Your task to perform on an android device: check google app version Image 0: 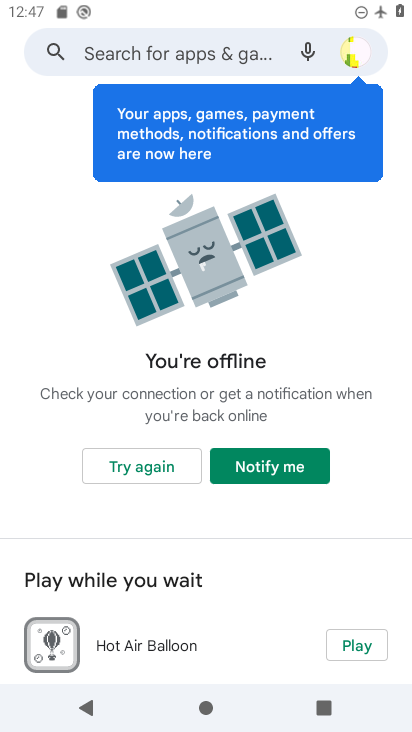
Step 0: press home button
Your task to perform on an android device: check google app version Image 1: 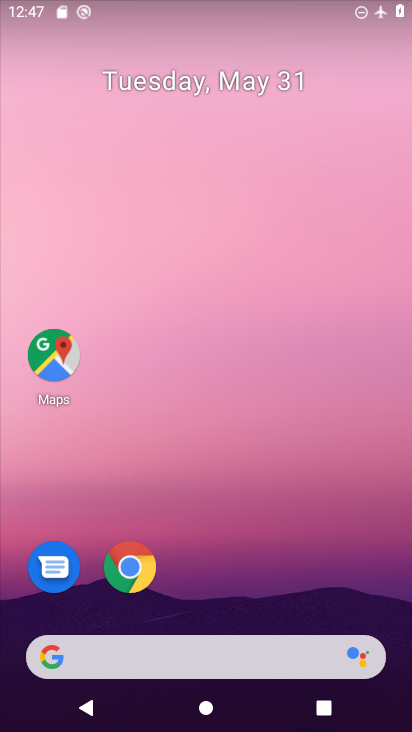
Step 1: drag from (233, 598) to (226, 95)
Your task to perform on an android device: check google app version Image 2: 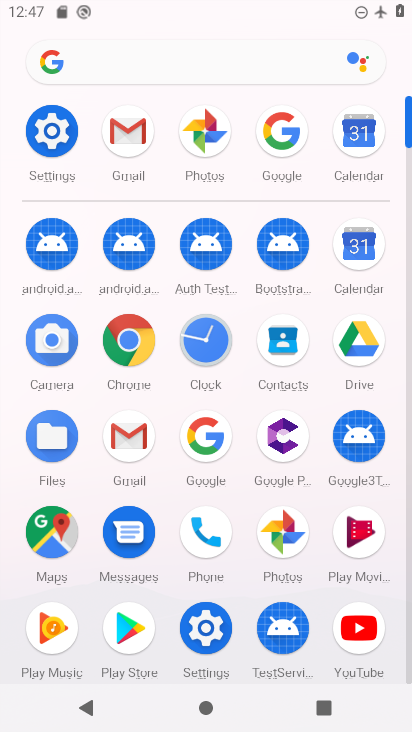
Step 2: click (259, 153)
Your task to perform on an android device: check google app version Image 3: 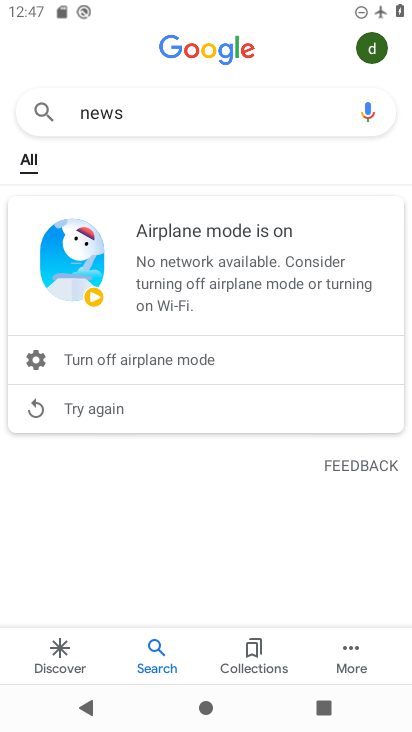
Step 3: click (360, 636)
Your task to perform on an android device: check google app version Image 4: 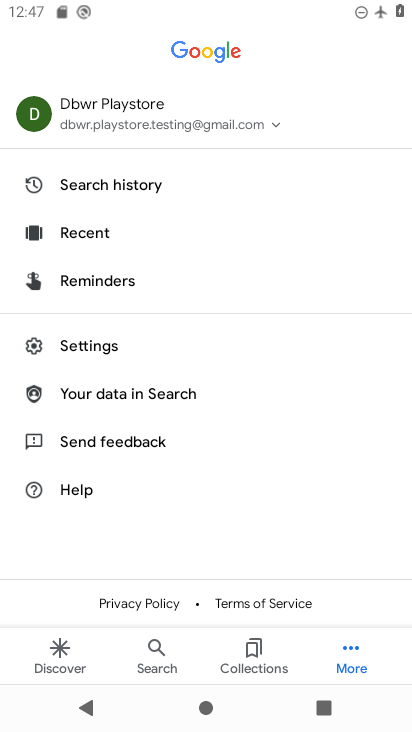
Step 4: click (61, 328)
Your task to perform on an android device: check google app version Image 5: 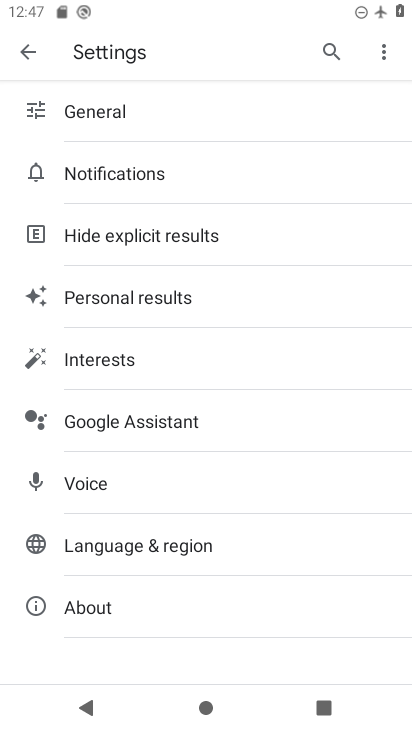
Step 5: click (126, 596)
Your task to perform on an android device: check google app version Image 6: 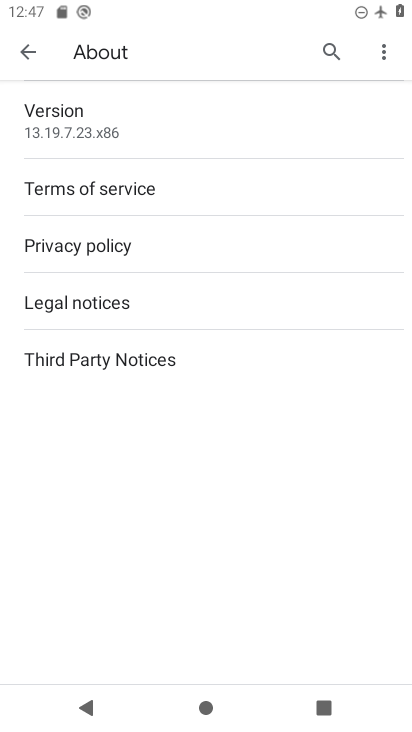
Step 6: click (110, 126)
Your task to perform on an android device: check google app version Image 7: 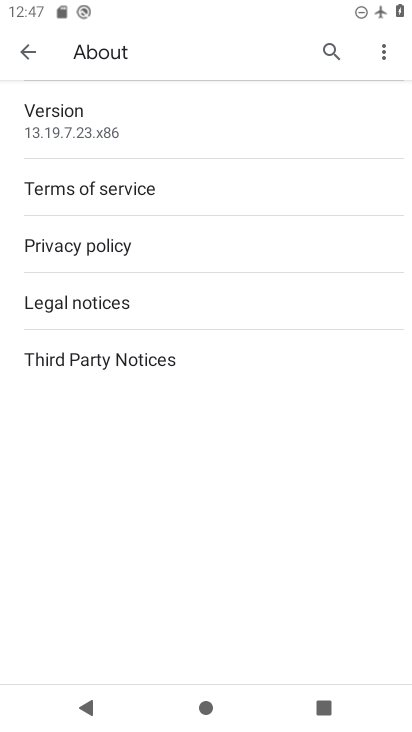
Step 7: task complete